Your task to perform on an android device: Look up the best rated headphones on Amazon. Image 0: 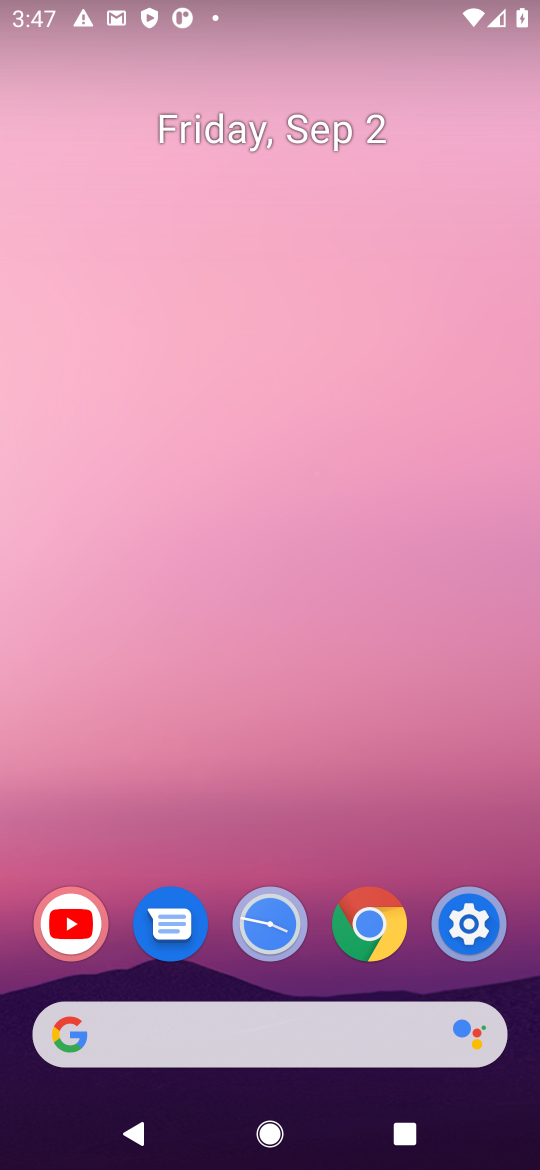
Step 0: press home button
Your task to perform on an android device: Look up the best rated headphones on Amazon. Image 1: 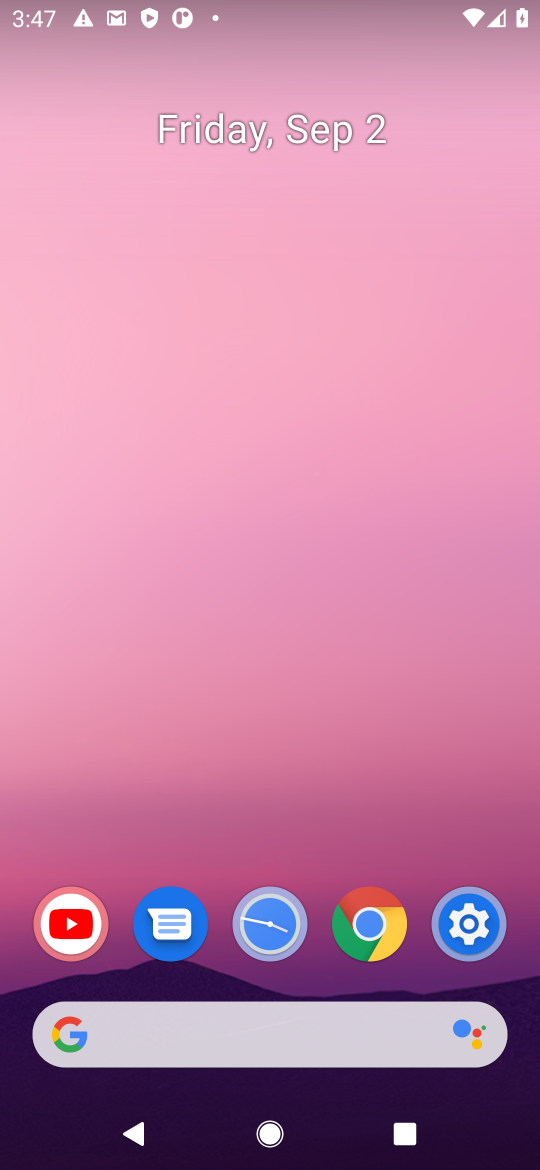
Step 1: click (397, 1034)
Your task to perform on an android device: Look up the best rated headphones on Amazon. Image 2: 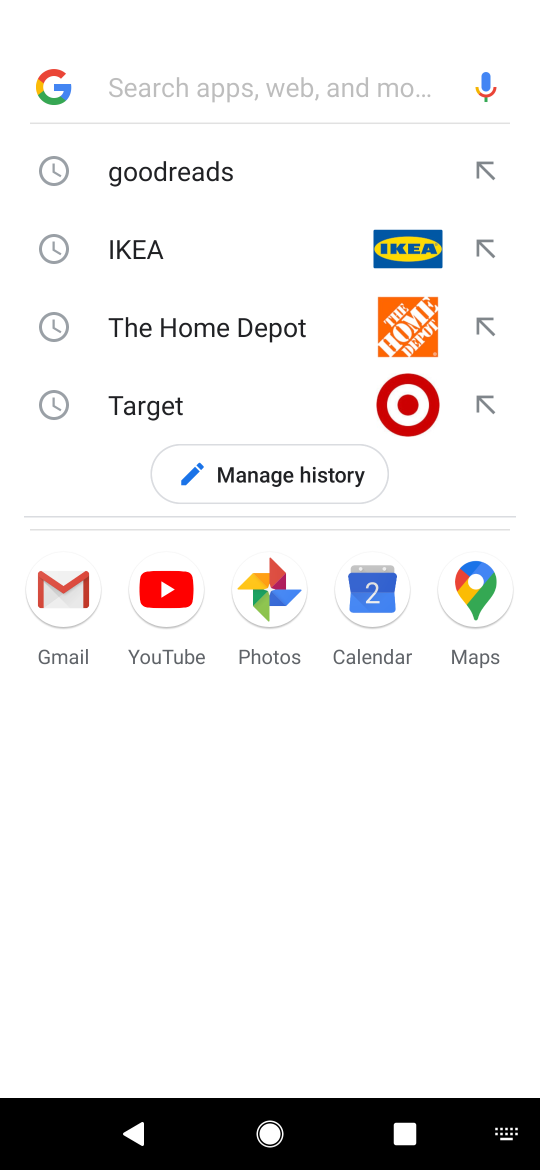
Step 2: press enter
Your task to perform on an android device: Look up the best rated headphones on Amazon. Image 3: 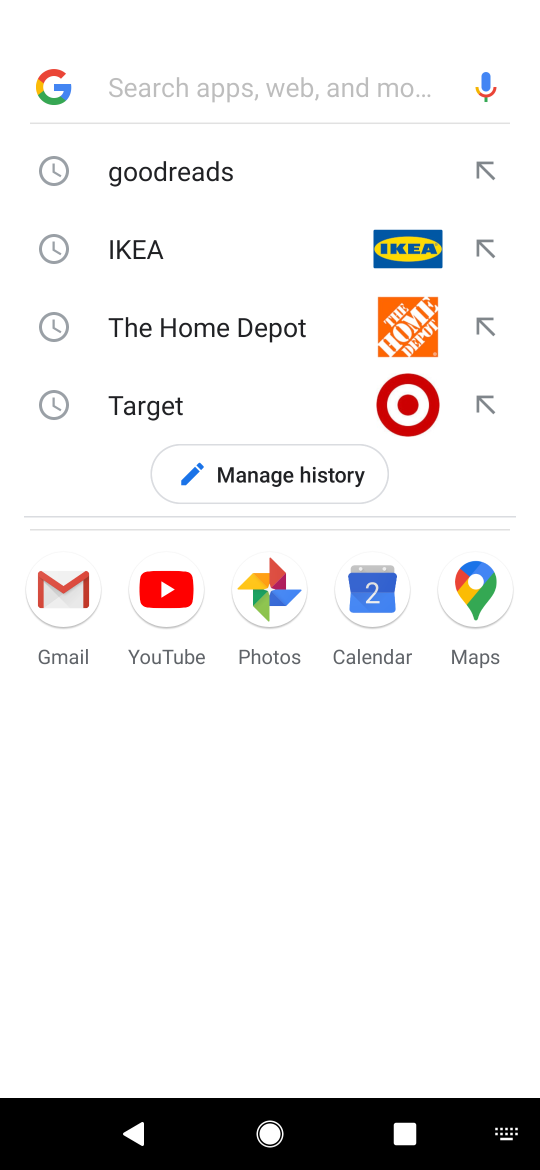
Step 3: type "amazon"
Your task to perform on an android device: Look up the best rated headphones on Amazon. Image 4: 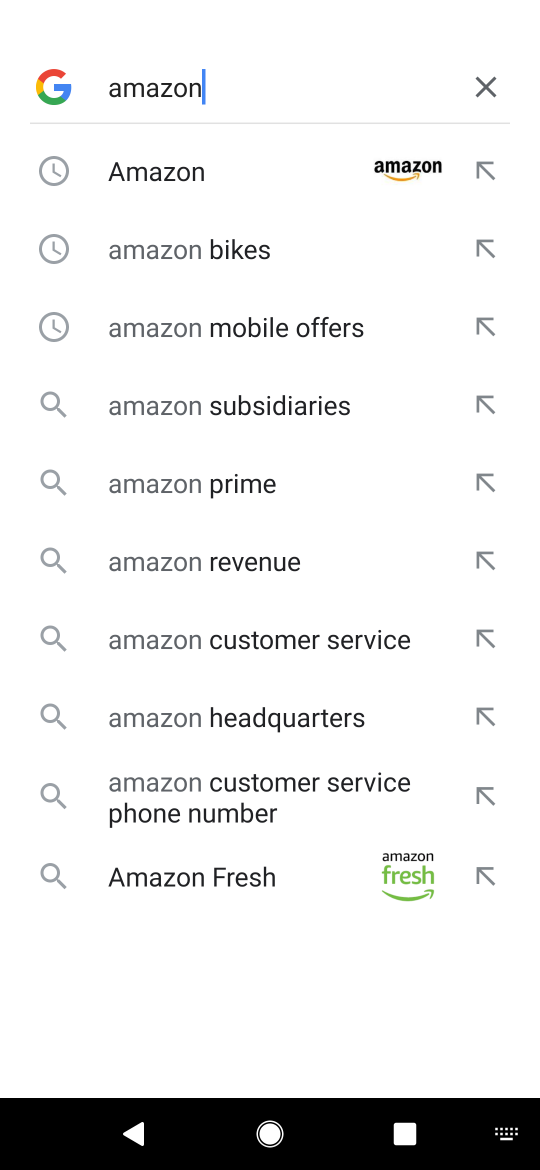
Step 4: click (189, 176)
Your task to perform on an android device: Look up the best rated headphones on Amazon. Image 5: 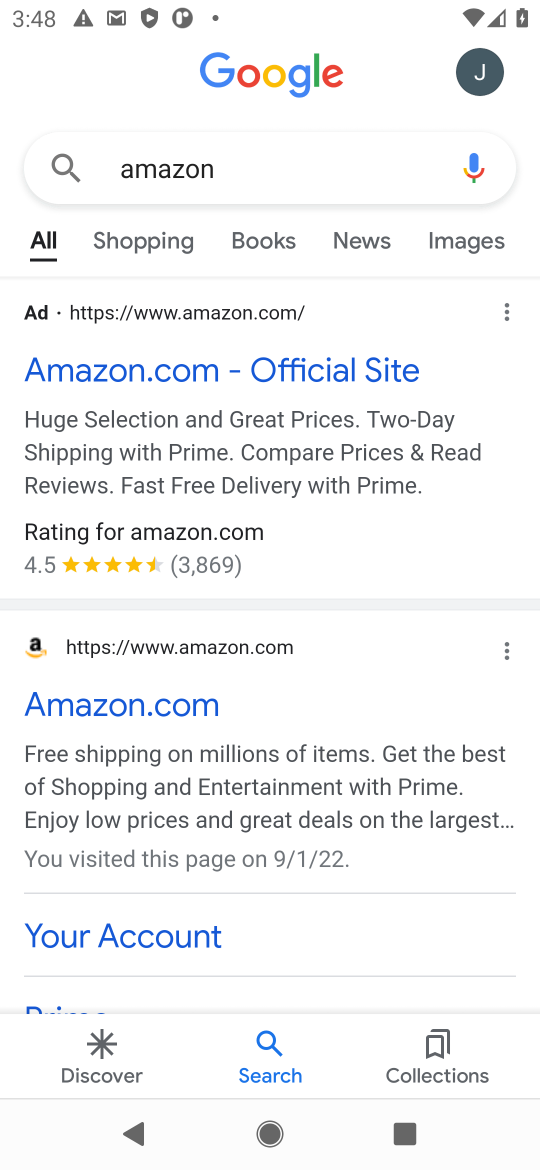
Step 5: click (367, 372)
Your task to perform on an android device: Look up the best rated headphones on Amazon. Image 6: 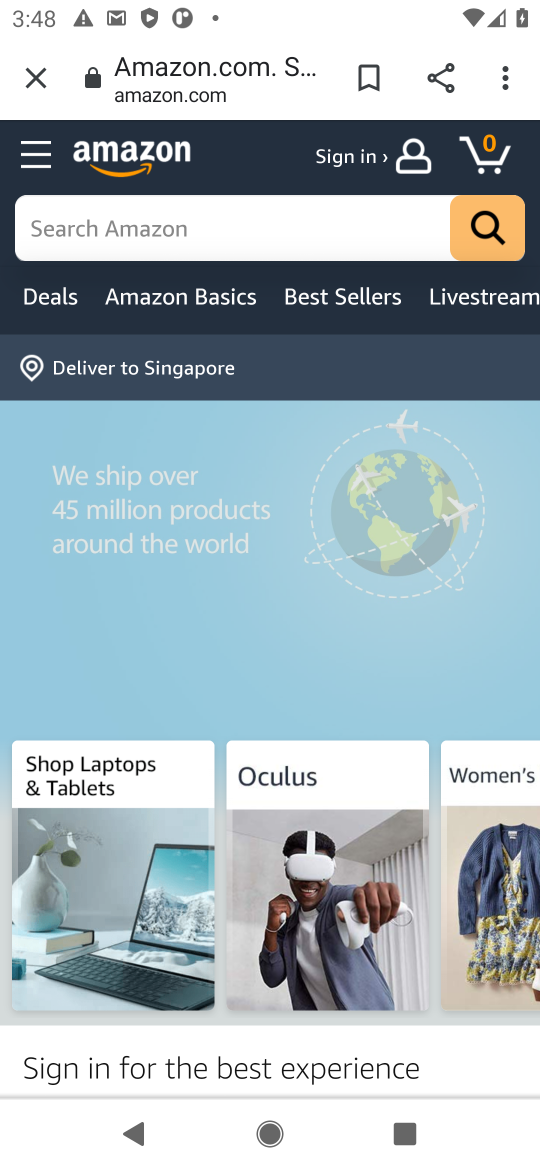
Step 6: click (260, 232)
Your task to perform on an android device: Look up the best rated headphones on Amazon. Image 7: 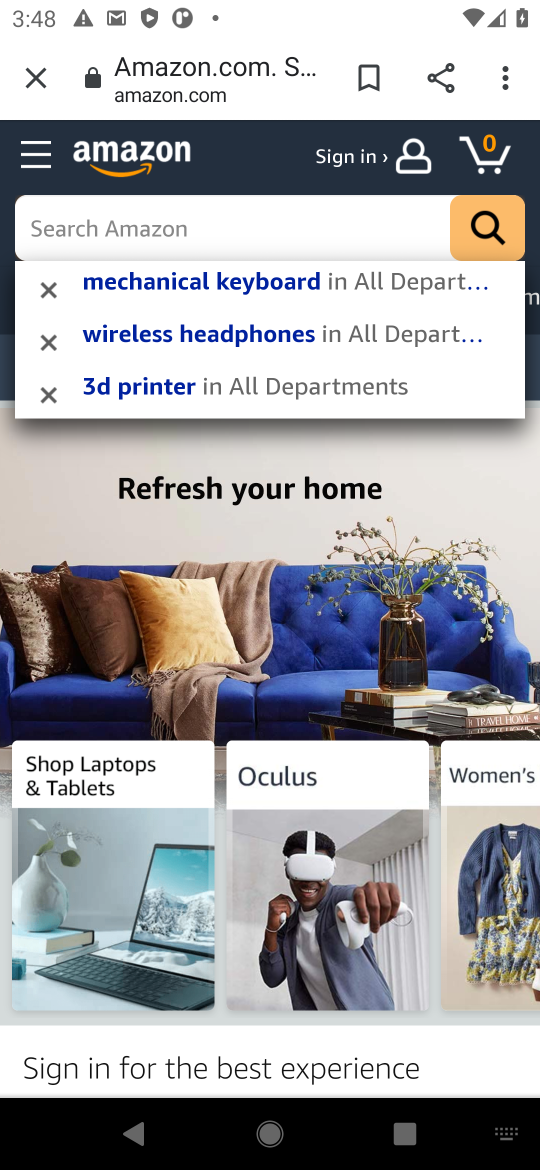
Step 7: type "headphones"
Your task to perform on an android device: Look up the best rated headphones on Amazon. Image 8: 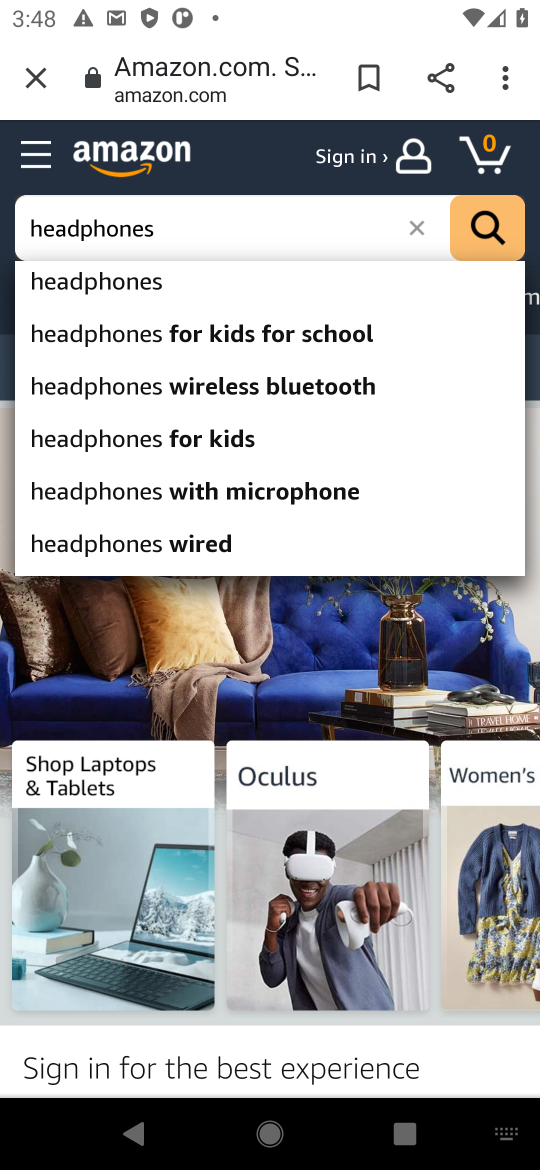
Step 8: click (140, 279)
Your task to perform on an android device: Look up the best rated headphones on Amazon. Image 9: 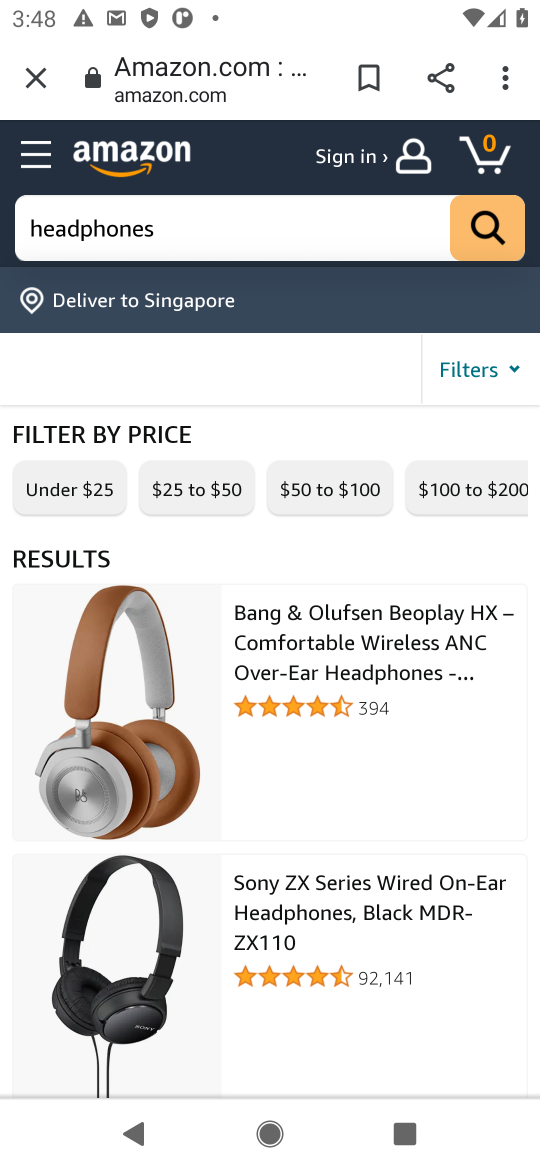
Step 9: task complete